Your task to perform on an android device: Open Google Chrome Image 0: 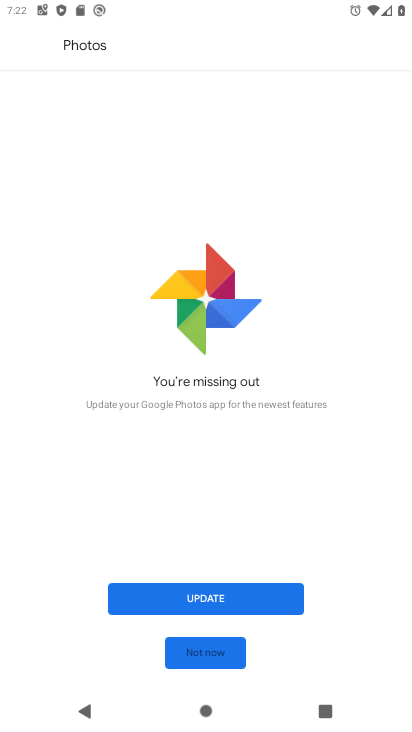
Step 0: press home button
Your task to perform on an android device: Open Google Chrome Image 1: 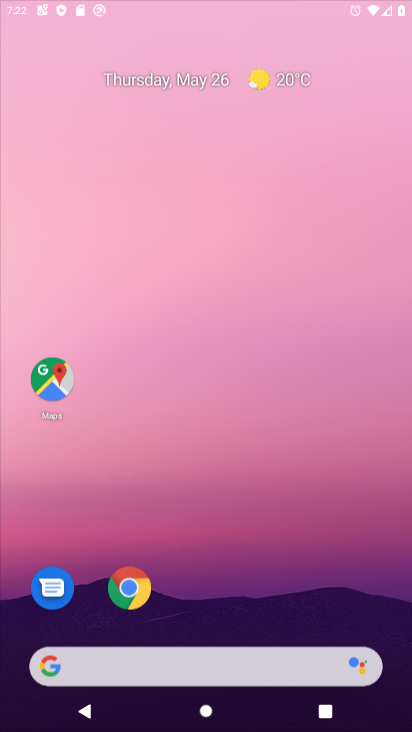
Step 1: drag from (360, 585) to (315, 15)
Your task to perform on an android device: Open Google Chrome Image 2: 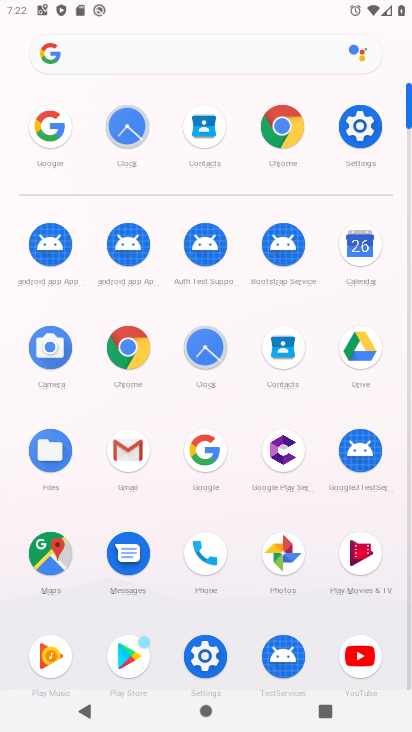
Step 2: click (138, 364)
Your task to perform on an android device: Open Google Chrome Image 3: 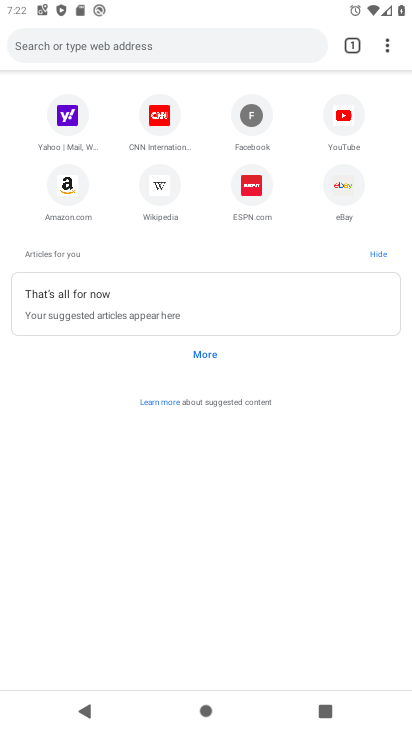
Step 3: task complete